Your task to perform on an android device: Do I have any events tomorrow? Image 0: 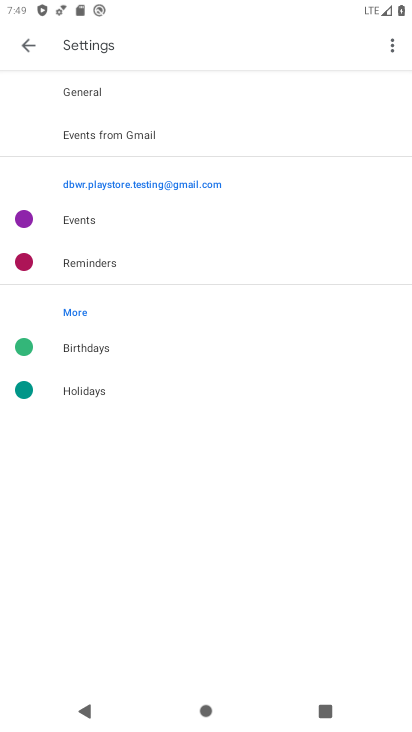
Step 0: press home button
Your task to perform on an android device: Do I have any events tomorrow? Image 1: 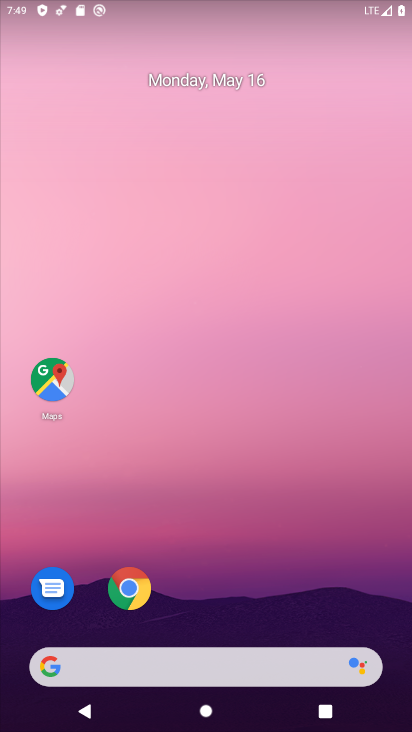
Step 1: drag from (219, 497) to (228, 0)
Your task to perform on an android device: Do I have any events tomorrow? Image 2: 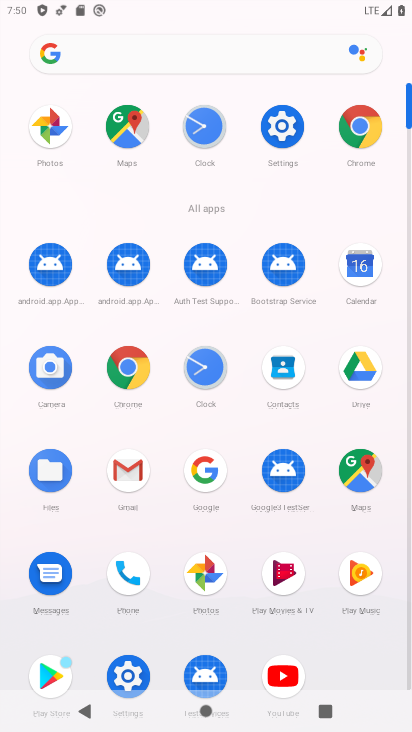
Step 2: click (357, 261)
Your task to perform on an android device: Do I have any events tomorrow? Image 3: 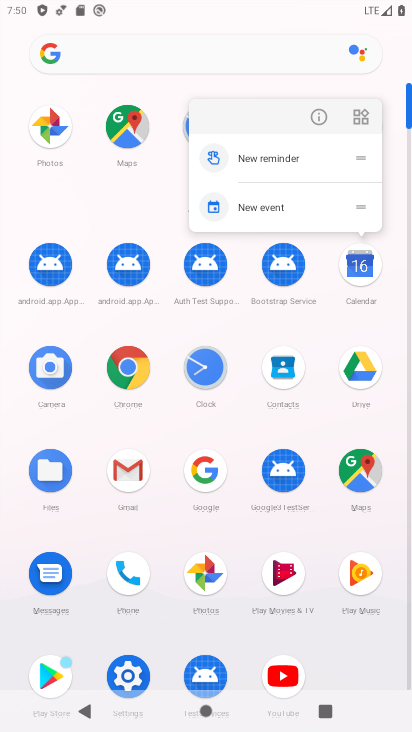
Step 3: click (360, 266)
Your task to perform on an android device: Do I have any events tomorrow? Image 4: 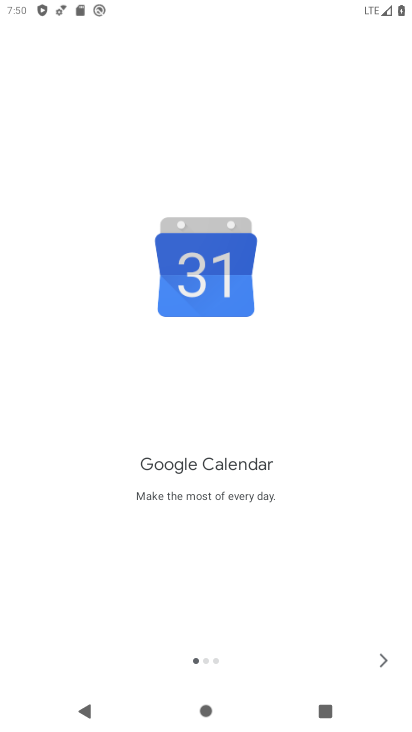
Step 4: click (368, 656)
Your task to perform on an android device: Do I have any events tomorrow? Image 5: 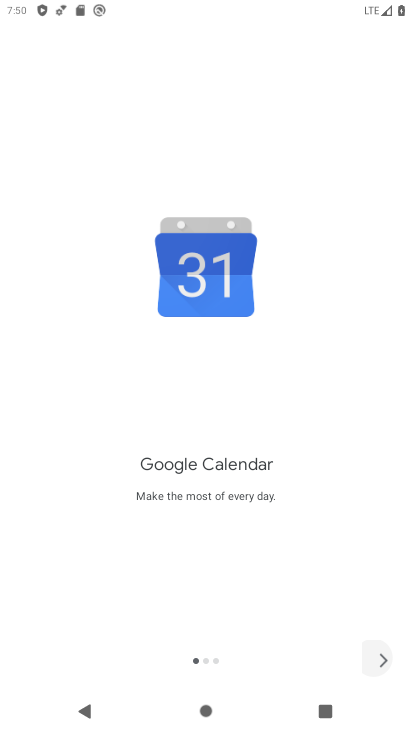
Step 5: click (368, 656)
Your task to perform on an android device: Do I have any events tomorrow? Image 6: 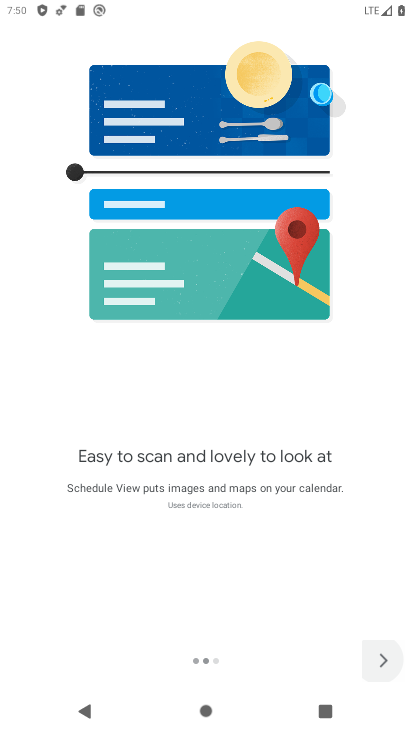
Step 6: click (368, 656)
Your task to perform on an android device: Do I have any events tomorrow? Image 7: 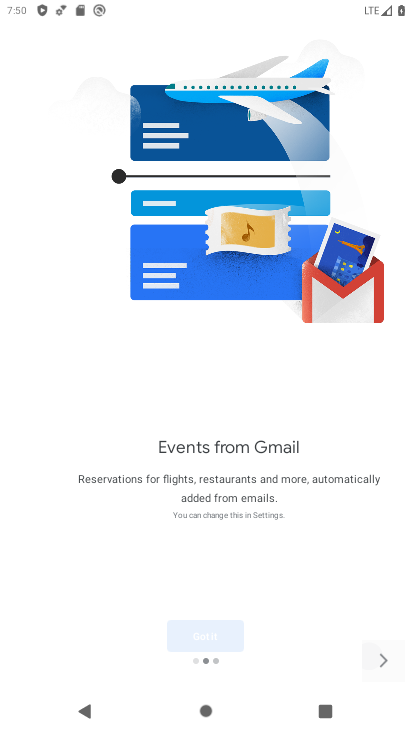
Step 7: click (368, 656)
Your task to perform on an android device: Do I have any events tomorrow? Image 8: 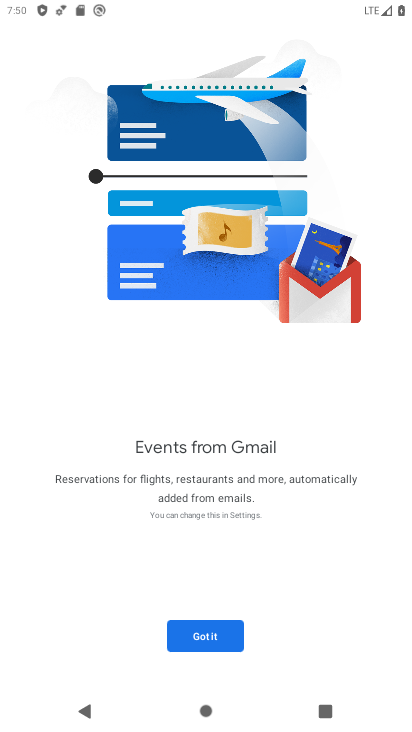
Step 8: click (369, 657)
Your task to perform on an android device: Do I have any events tomorrow? Image 9: 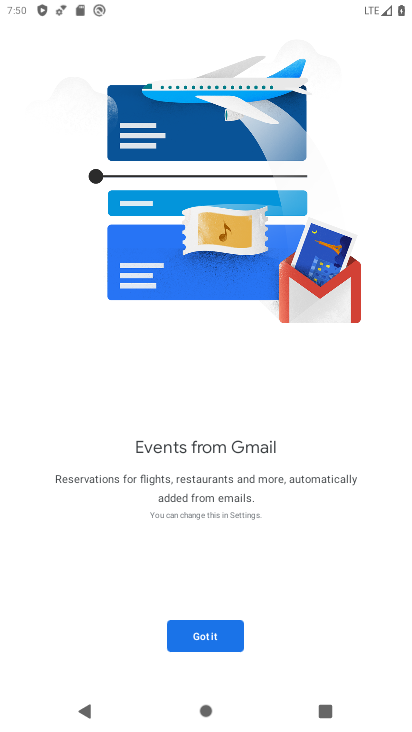
Step 9: click (237, 635)
Your task to perform on an android device: Do I have any events tomorrow? Image 10: 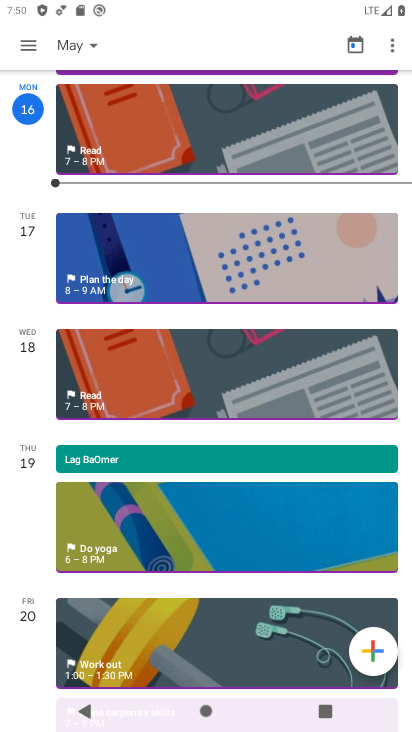
Step 10: click (25, 234)
Your task to perform on an android device: Do I have any events tomorrow? Image 11: 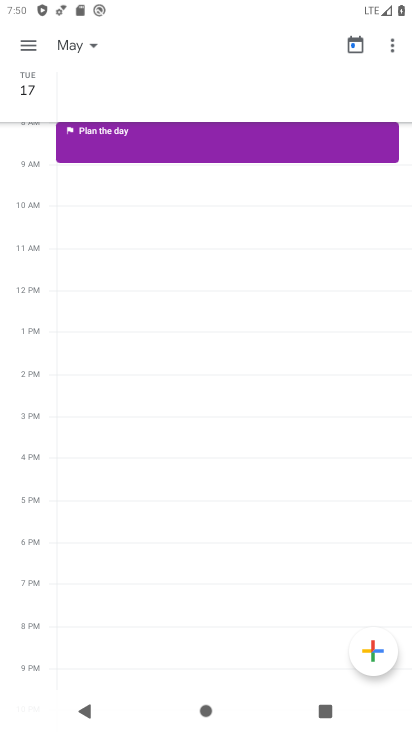
Step 11: task complete